Your task to perform on an android device: Search for the best selling phone on AliExpress Image 0: 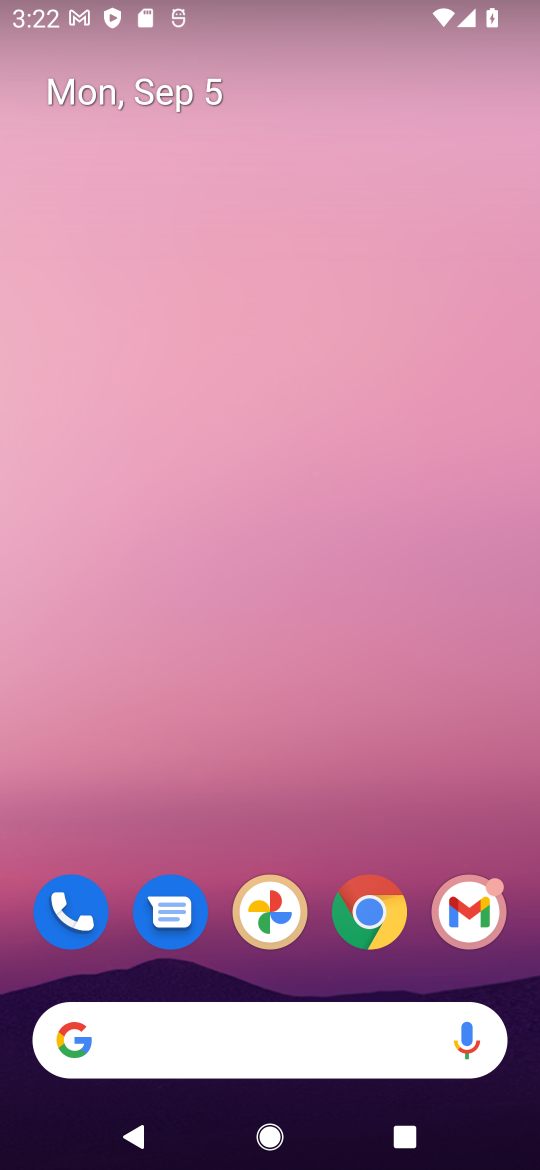
Step 0: press home button
Your task to perform on an android device: Search for the best selling phone on AliExpress Image 1: 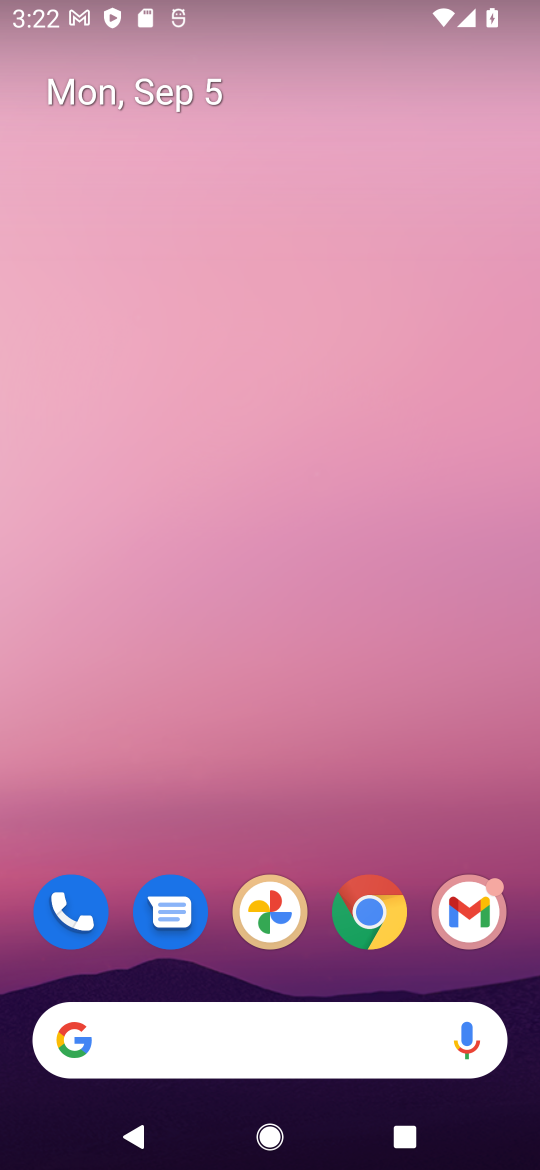
Step 1: click (353, 918)
Your task to perform on an android device: Search for the best selling phone on AliExpress Image 2: 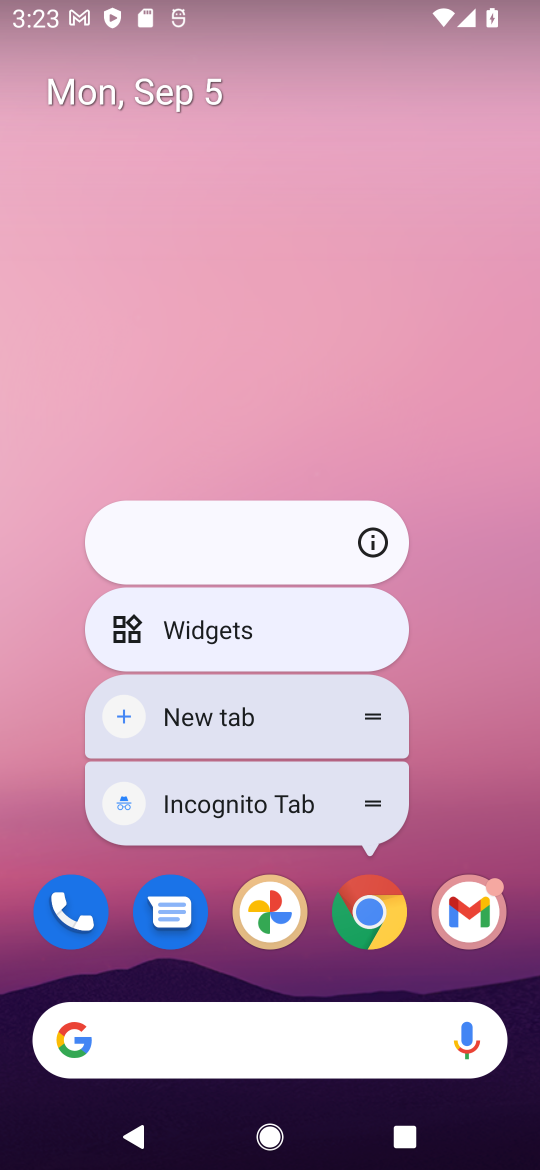
Step 2: click (375, 935)
Your task to perform on an android device: Search for the best selling phone on AliExpress Image 3: 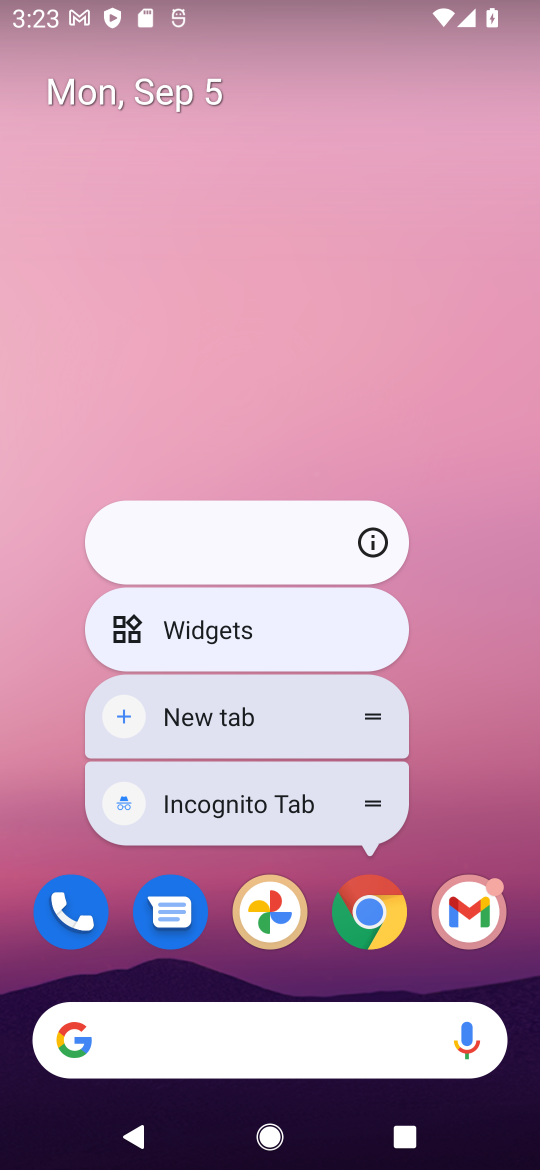
Step 3: click (392, 905)
Your task to perform on an android device: Search for the best selling phone on AliExpress Image 4: 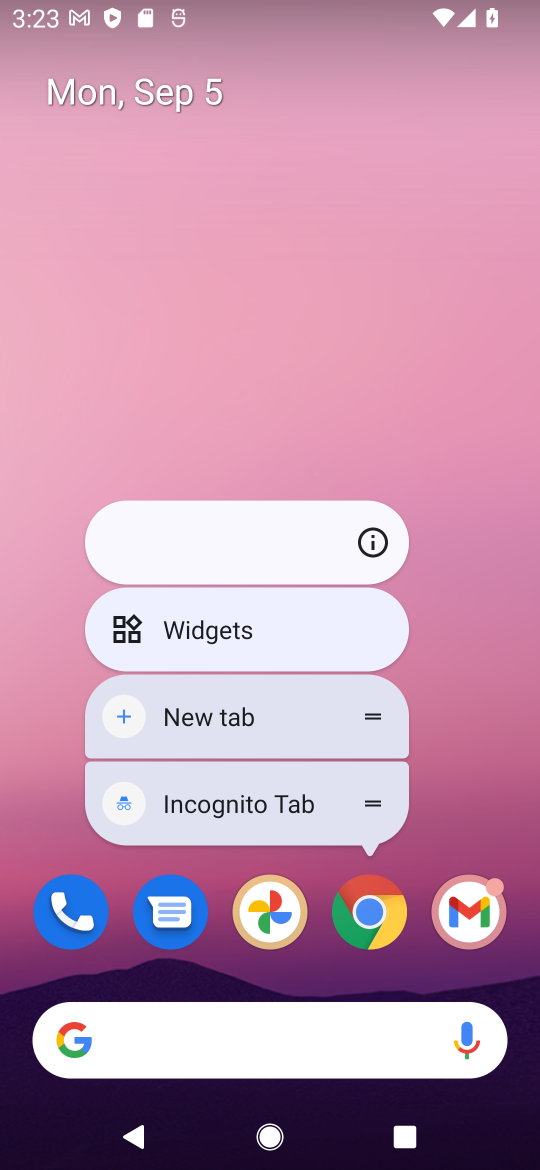
Step 4: click (453, 782)
Your task to perform on an android device: Search for the best selling phone on AliExpress Image 5: 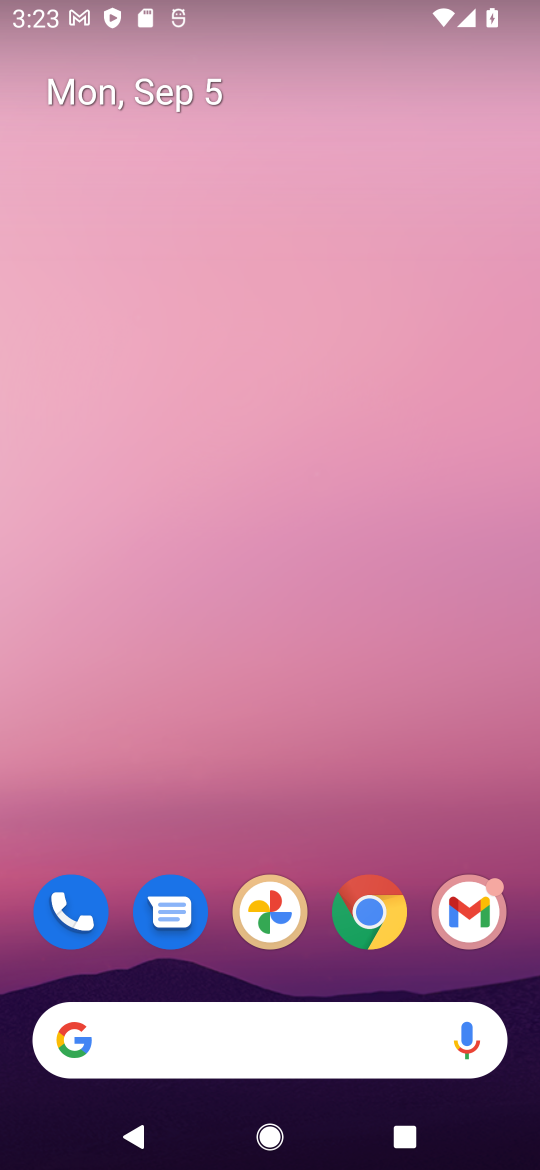
Step 5: click (392, 914)
Your task to perform on an android device: Search for the best selling phone on AliExpress Image 6: 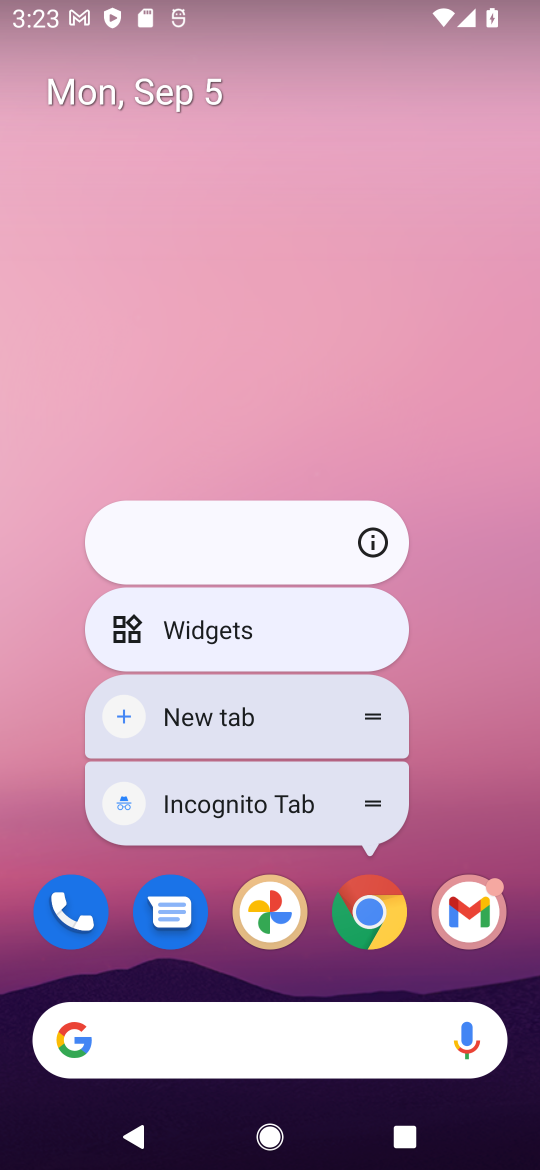
Step 6: click (370, 949)
Your task to perform on an android device: Search for the best selling phone on AliExpress Image 7: 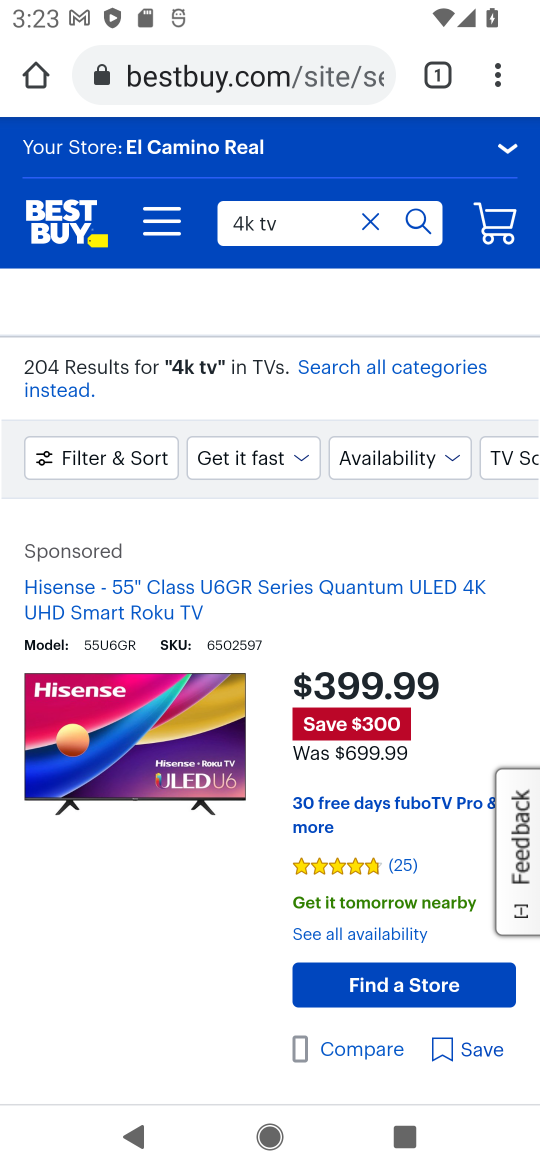
Step 7: click (192, 53)
Your task to perform on an android device: Search for the best selling phone on AliExpress Image 8: 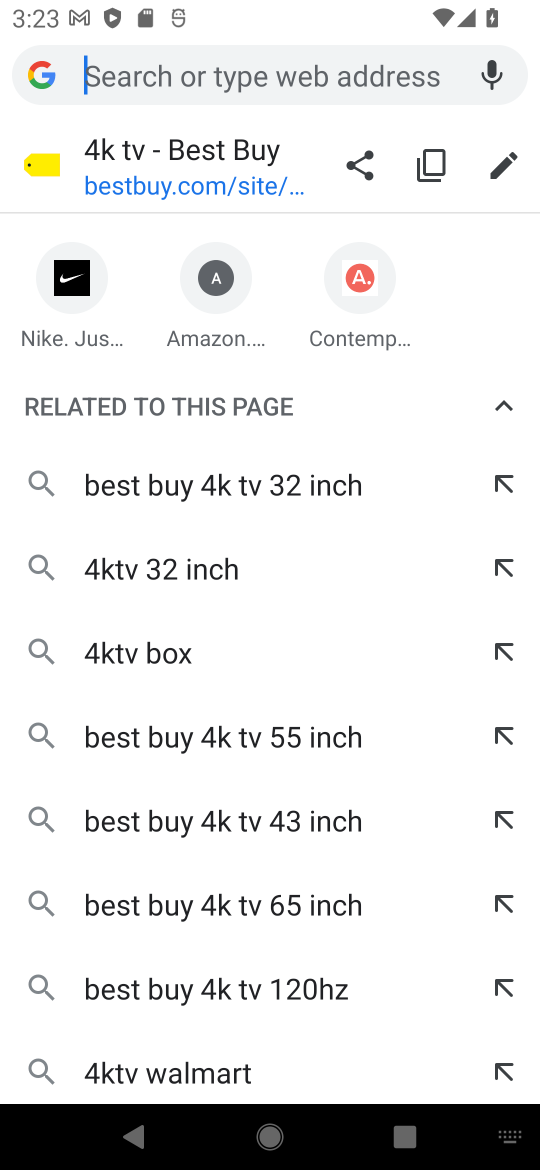
Step 8: type "aliexpress"
Your task to perform on an android device: Search for the best selling phone on AliExpress Image 9: 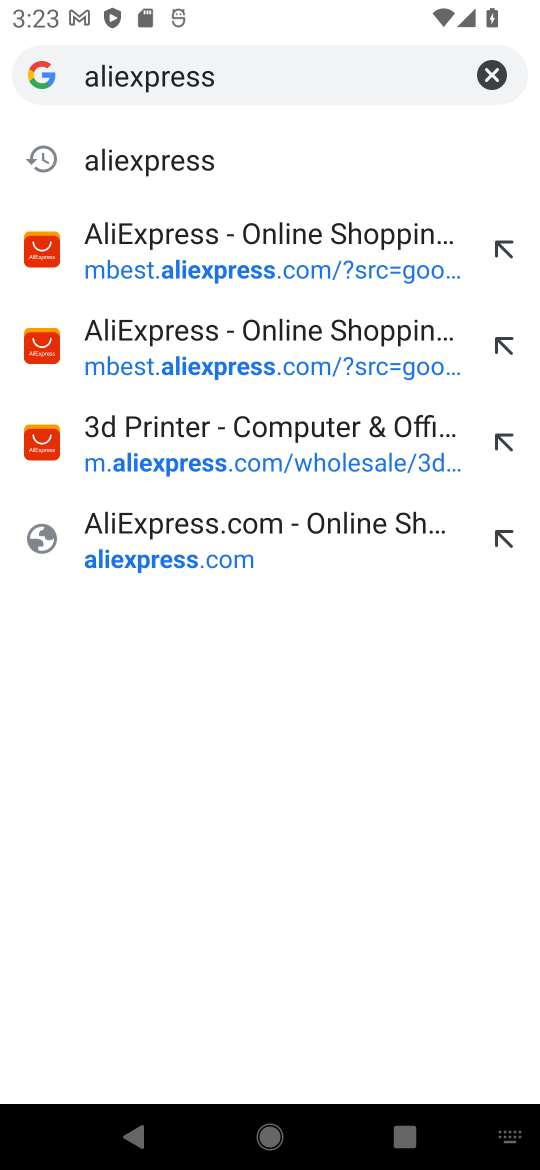
Step 9: press enter
Your task to perform on an android device: Search for the best selling phone on AliExpress Image 10: 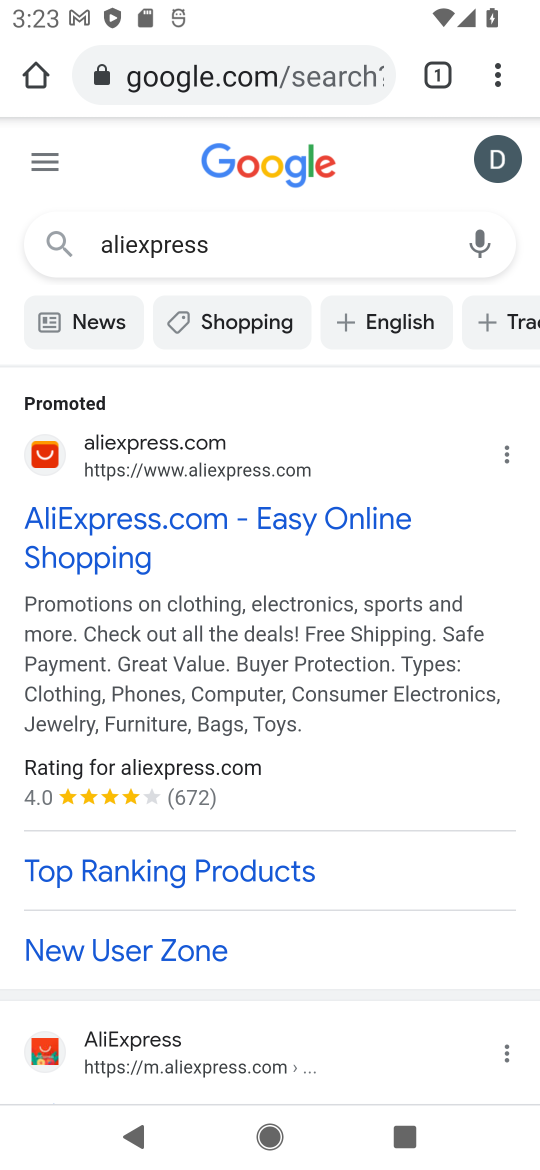
Step 10: click (117, 536)
Your task to perform on an android device: Search for the best selling phone on AliExpress Image 11: 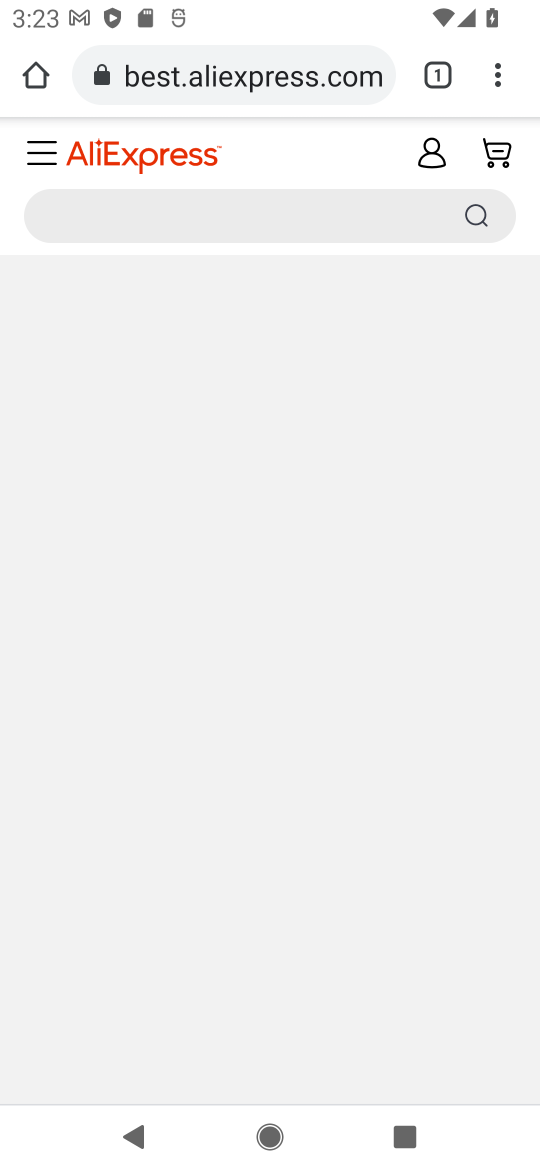
Step 11: click (181, 223)
Your task to perform on an android device: Search for the best selling phone on AliExpress Image 12: 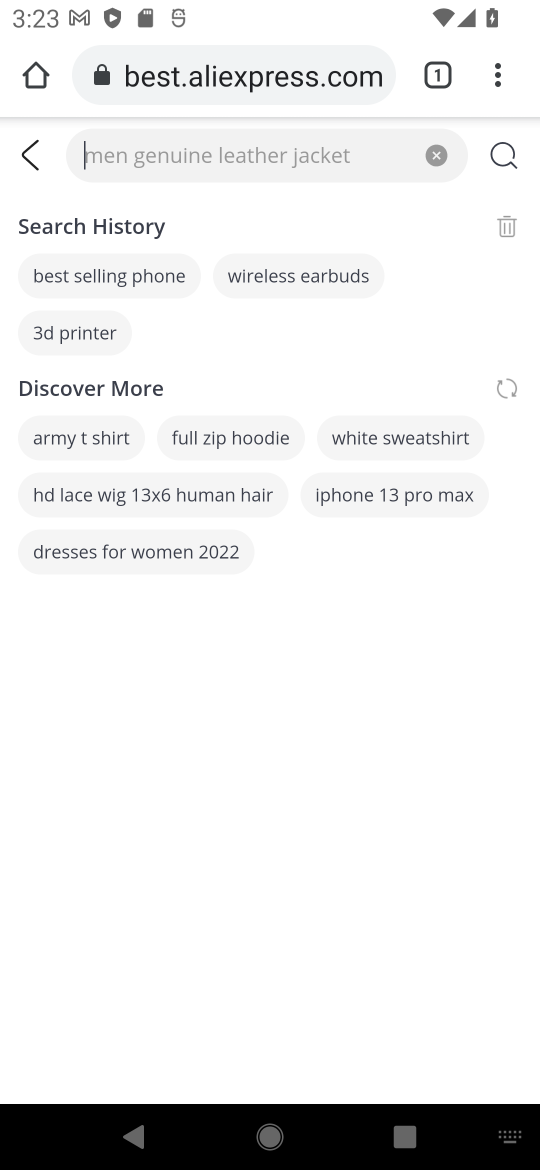
Step 12: type "best selling phone"
Your task to perform on an android device: Search for the best selling phone on AliExpress Image 13: 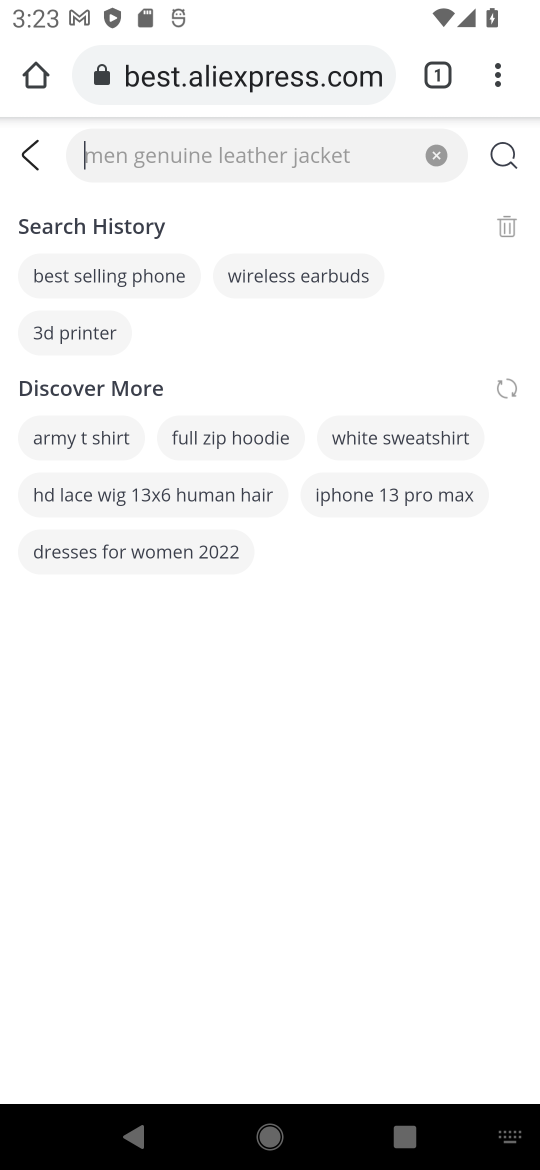
Step 13: type ""
Your task to perform on an android device: Search for the best selling phone on AliExpress Image 14: 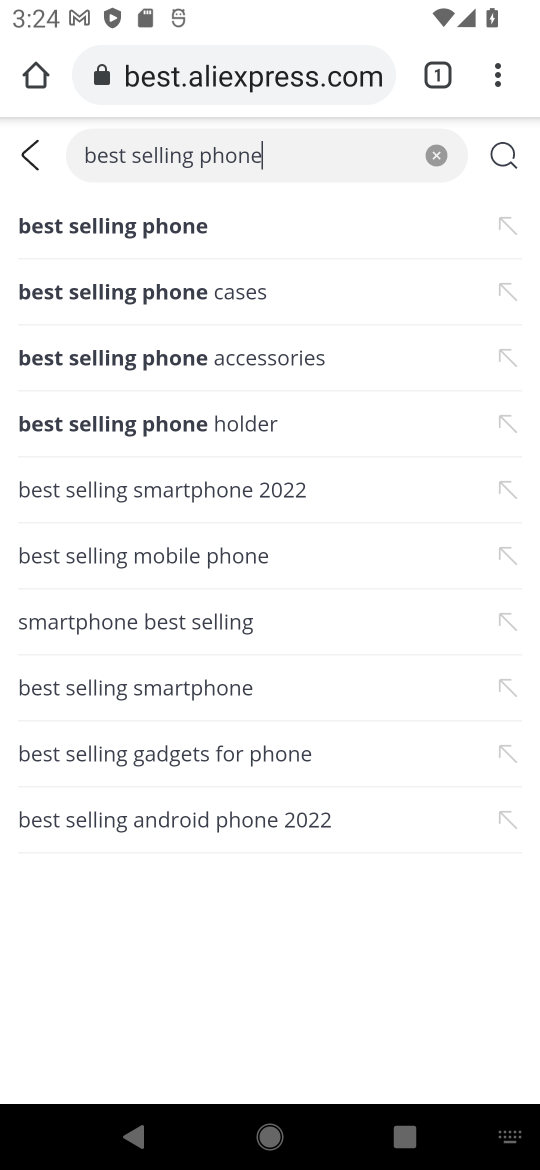
Step 14: press enter
Your task to perform on an android device: Search for the best selling phone on AliExpress Image 15: 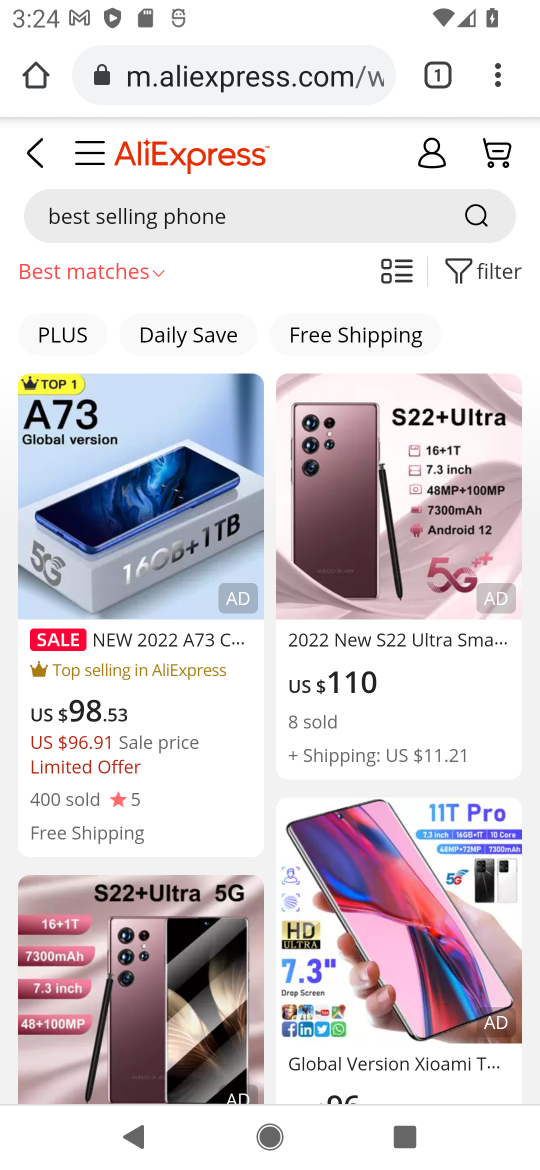
Step 15: click (462, 267)
Your task to perform on an android device: Search for the best selling phone on AliExpress Image 16: 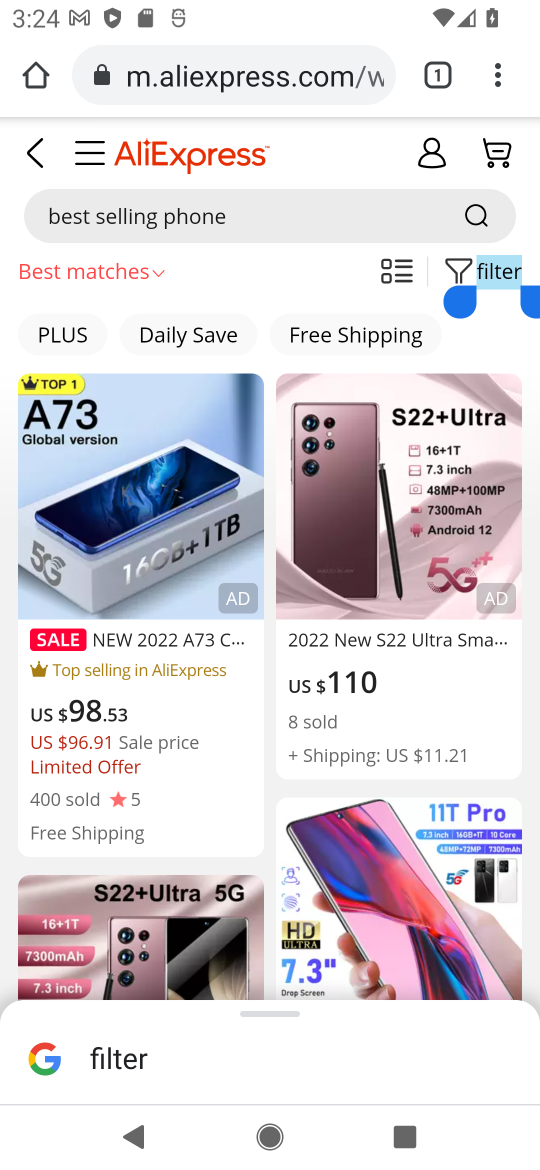
Step 16: click (452, 273)
Your task to perform on an android device: Search for the best selling phone on AliExpress Image 17: 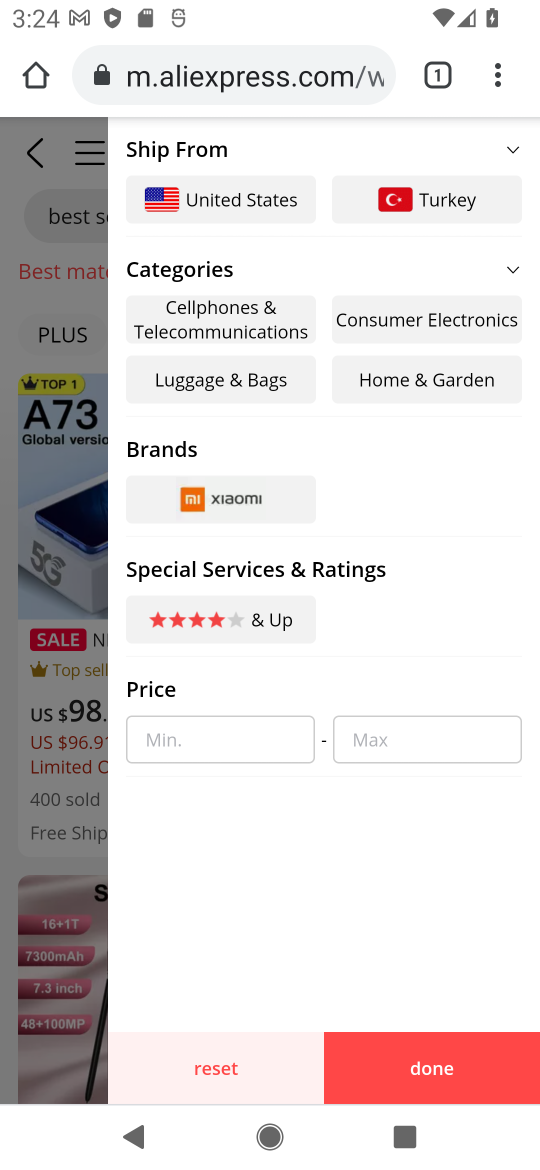
Step 17: click (31, 270)
Your task to perform on an android device: Search for the best selling phone on AliExpress Image 18: 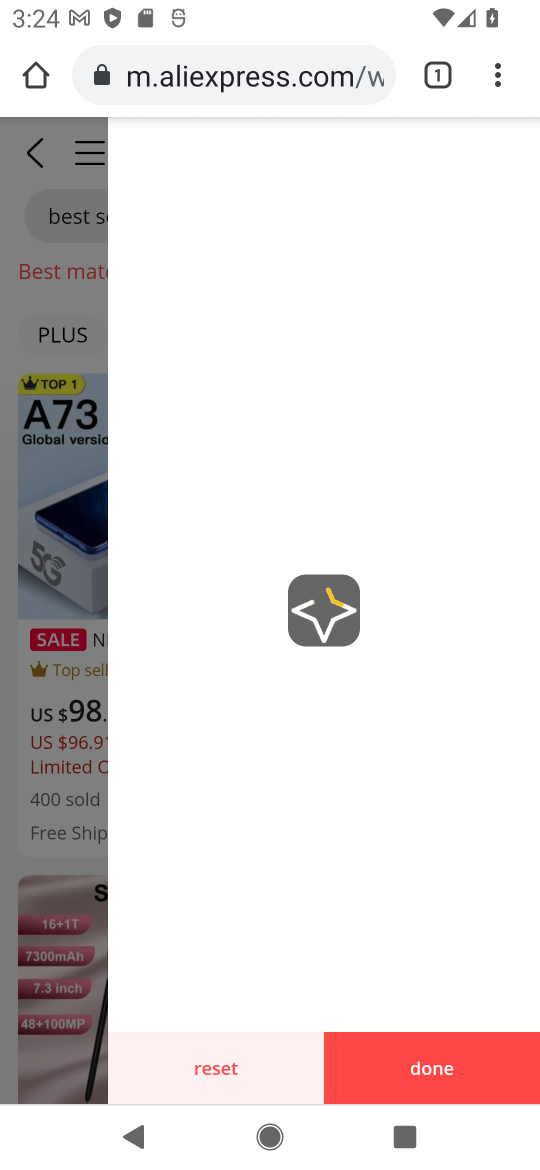
Step 18: click (36, 287)
Your task to perform on an android device: Search for the best selling phone on AliExpress Image 19: 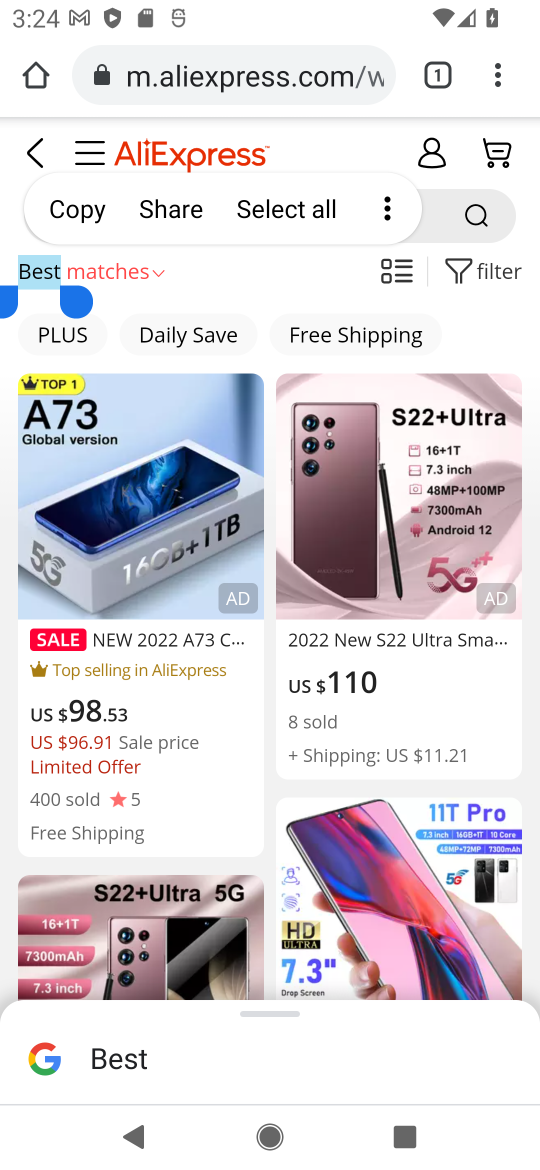
Step 19: click (301, 291)
Your task to perform on an android device: Search for the best selling phone on AliExpress Image 20: 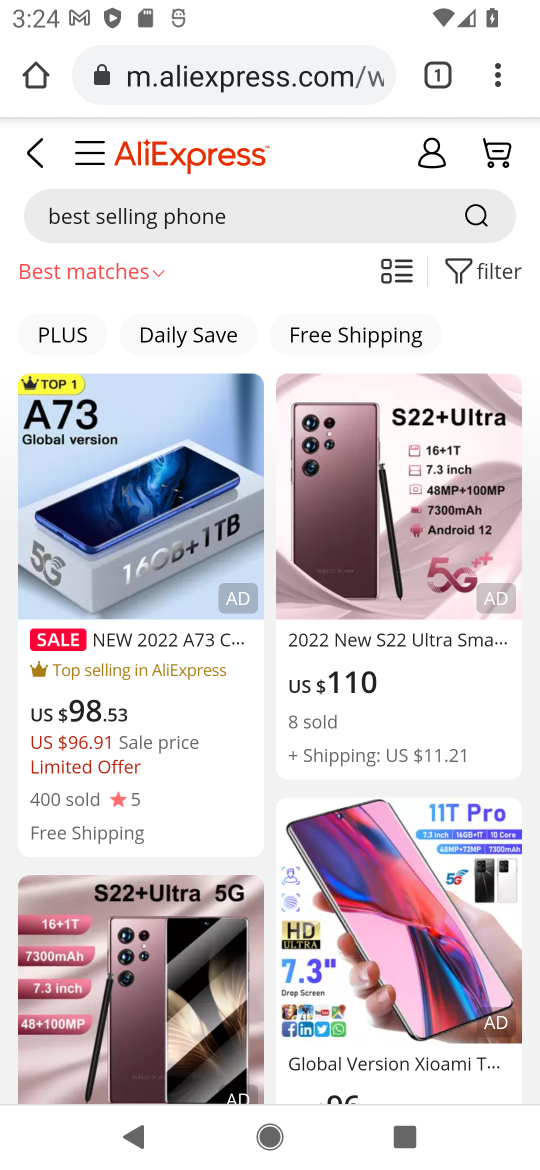
Step 20: task complete